Your task to perform on an android device: turn on priority inbox in the gmail app Image 0: 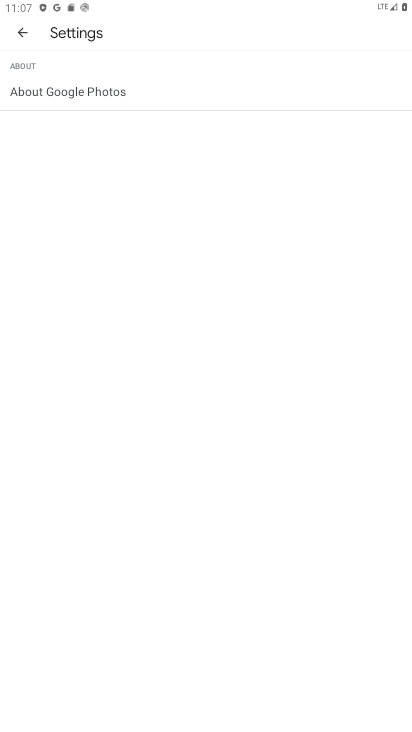
Step 0: click (234, 651)
Your task to perform on an android device: turn on priority inbox in the gmail app Image 1: 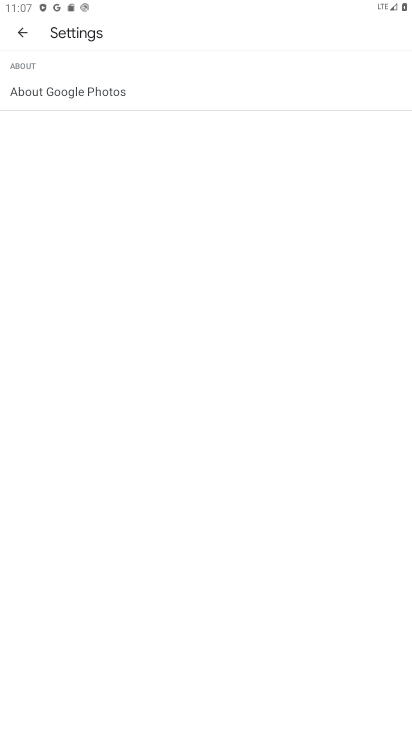
Step 1: press home button
Your task to perform on an android device: turn on priority inbox in the gmail app Image 2: 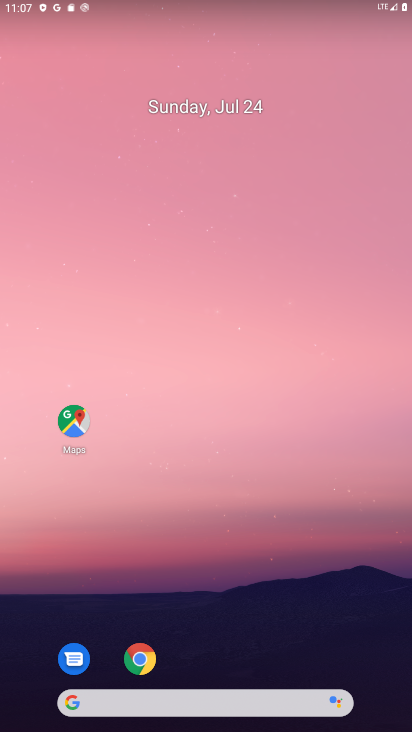
Step 2: drag from (238, 668) to (225, 109)
Your task to perform on an android device: turn on priority inbox in the gmail app Image 3: 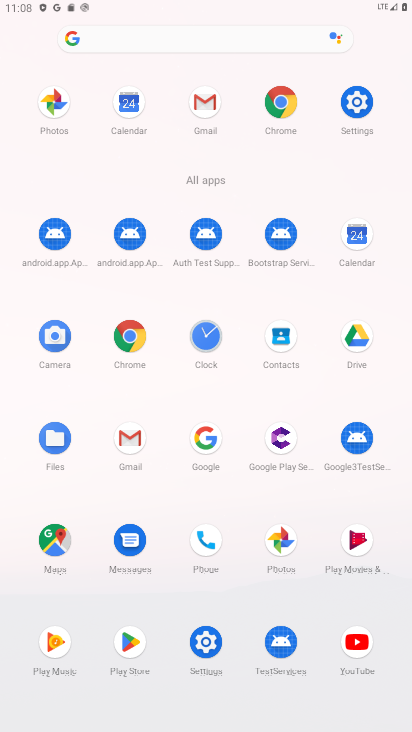
Step 3: click (209, 123)
Your task to perform on an android device: turn on priority inbox in the gmail app Image 4: 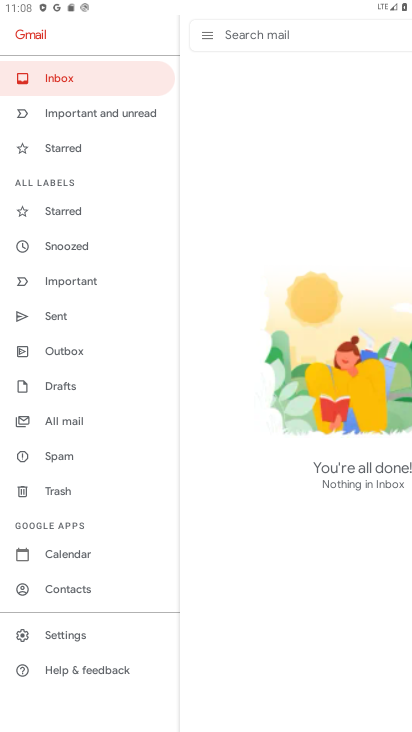
Step 4: click (101, 631)
Your task to perform on an android device: turn on priority inbox in the gmail app Image 5: 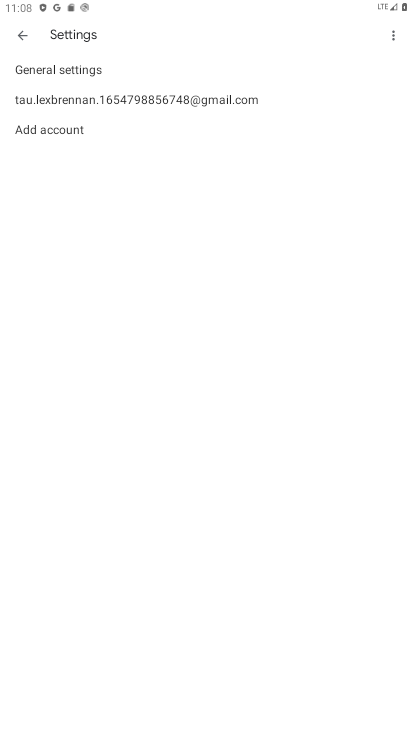
Step 5: click (284, 104)
Your task to perform on an android device: turn on priority inbox in the gmail app Image 6: 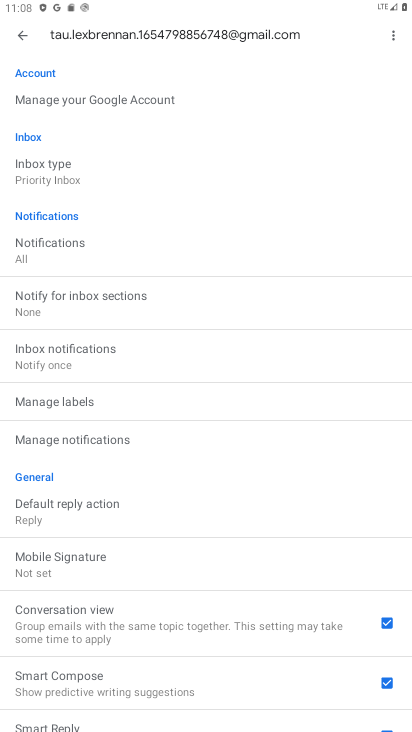
Step 6: task complete